Your task to perform on an android device: find photos in the google photos app Image 0: 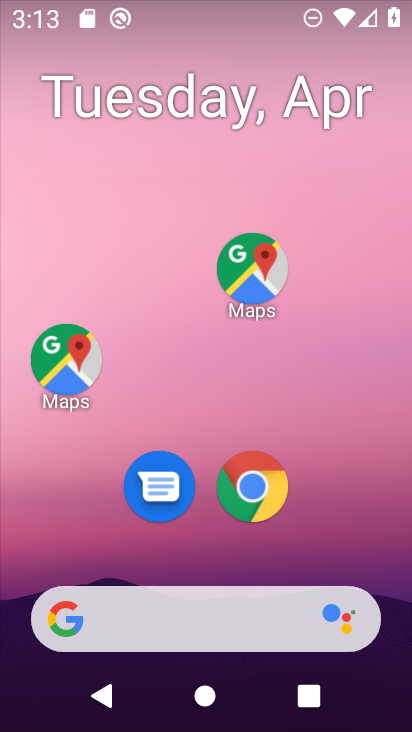
Step 0: drag from (228, 555) to (214, 171)
Your task to perform on an android device: find photos in the google photos app Image 1: 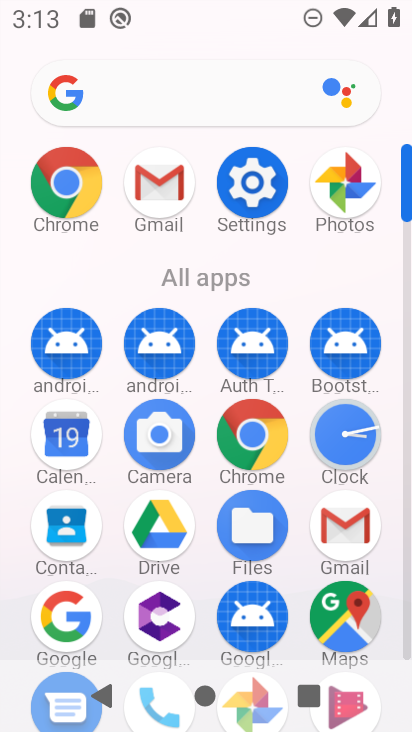
Step 1: drag from (196, 590) to (204, 382)
Your task to perform on an android device: find photos in the google photos app Image 2: 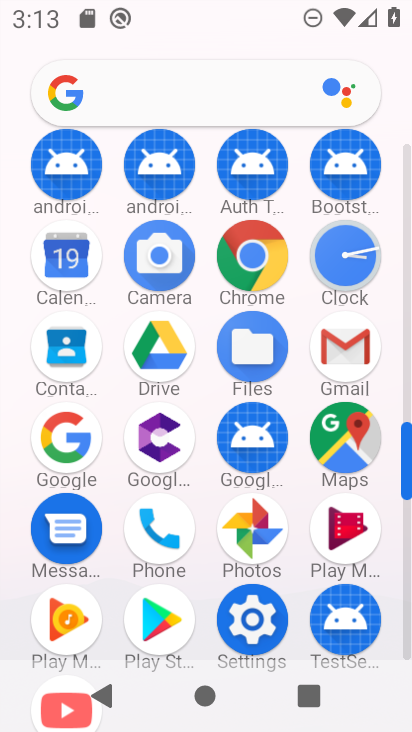
Step 2: click (252, 535)
Your task to perform on an android device: find photos in the google photos app Image 3: 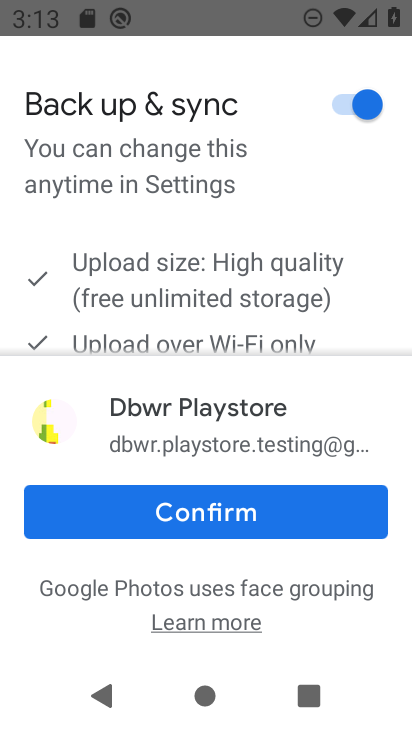
Step 3: click (236, 525)
Your task to perform on an android device: find photos in the google photos app Image 4: 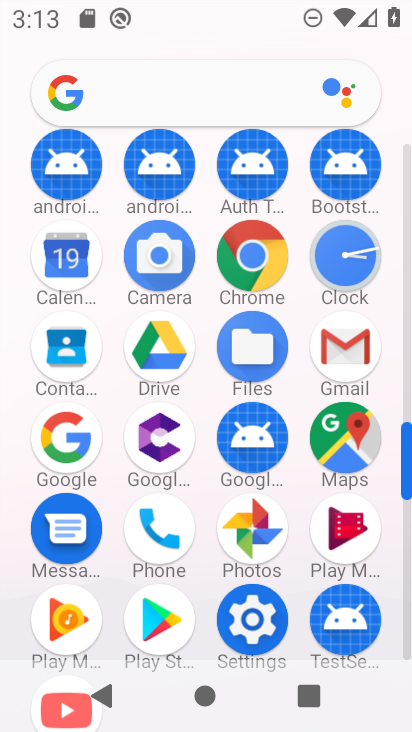
Step 4: click (246, 532)
Your task to perform on an android device: find photos in the google photos app Image 5: 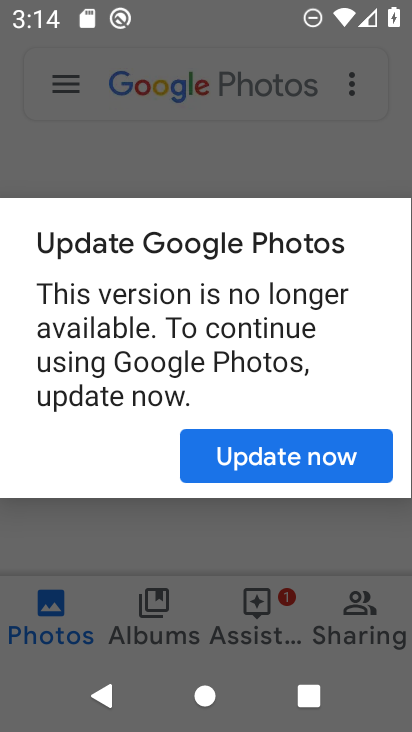
Step 5: click (272, 458)
Your task to perform on an android device: find photos in the google photos app Image 6: 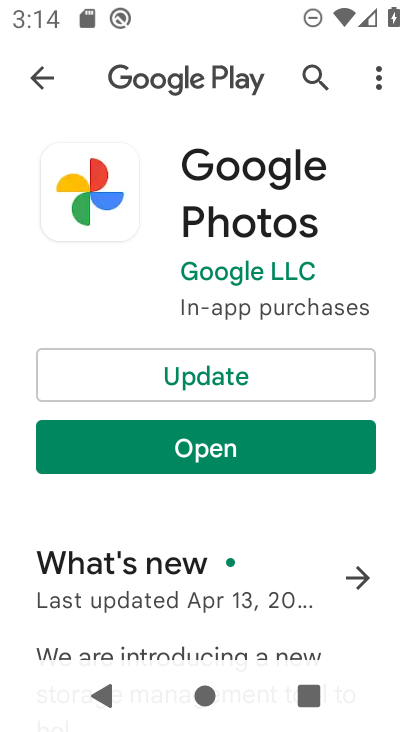
Step 6: click (281, 362)
Your task to perform on an android device: find photos in the google photos app Image 7: 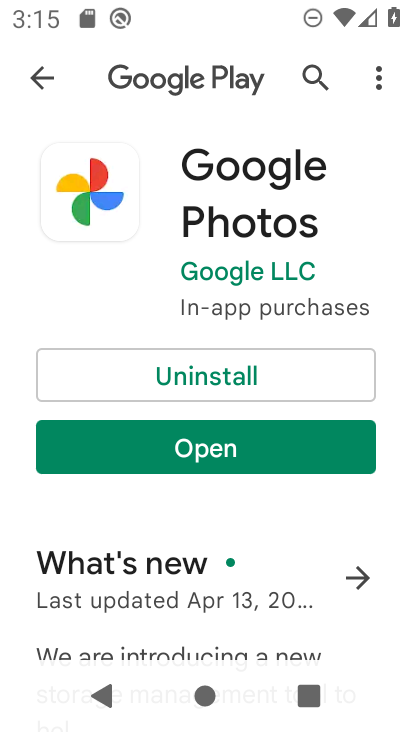
Step 7: click (220, 448)
Your task to perform on an android device: find photos in the google photos app Image 8: 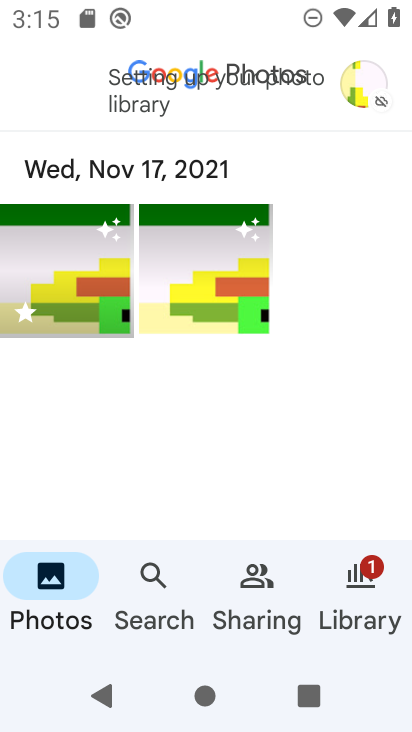
Step 8: click (110, 313)
Your task to perform on an android device: find photos in the google photos app Image 9: 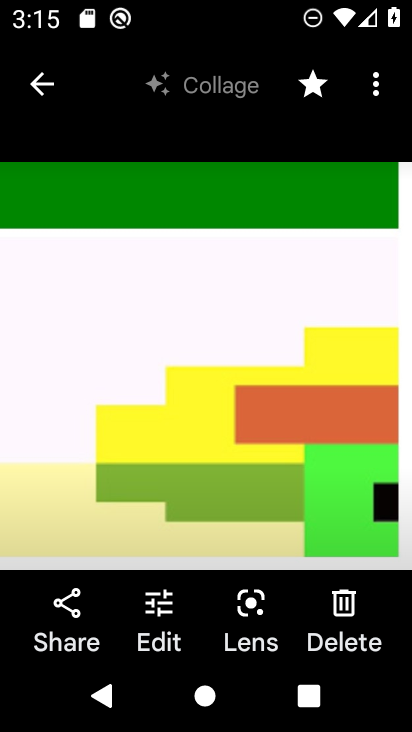
Step 9: task complete